Your task to perform on an android device: Open Maps and search for coffee Image 0: 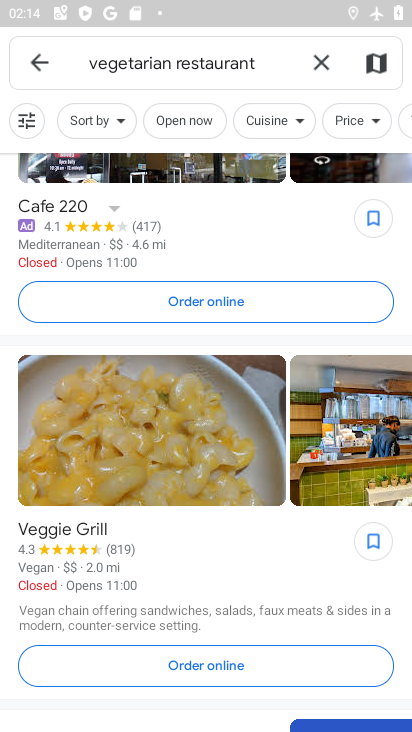
Step 0: drag from (248, 233) to (247, 599)
Your task to perform on an android device: Open Maps and search for coffee Image 1: 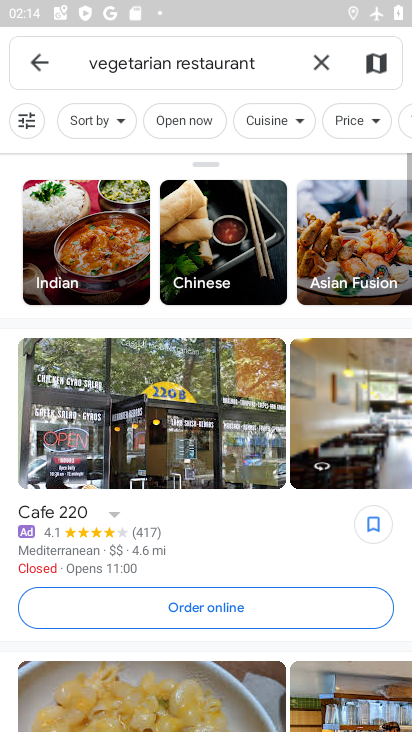
Step 1: click (328, 67)
Your task to perform on an android device: Open Maps and search for coffee Image 2: 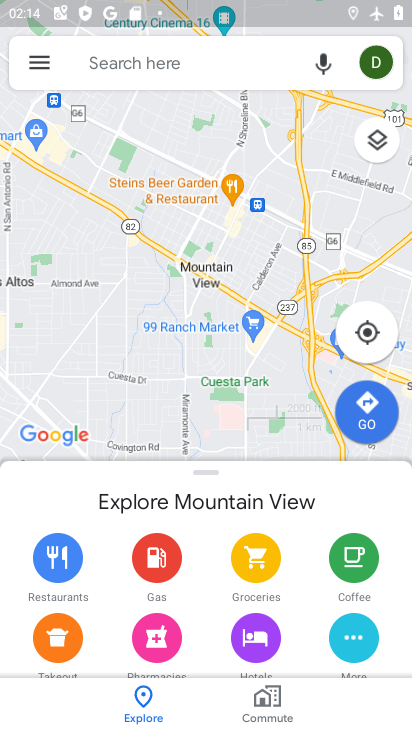
Step 2: click (206, 53)
Your task to perform on an android device: Open Maps and search for coffee Image 3: 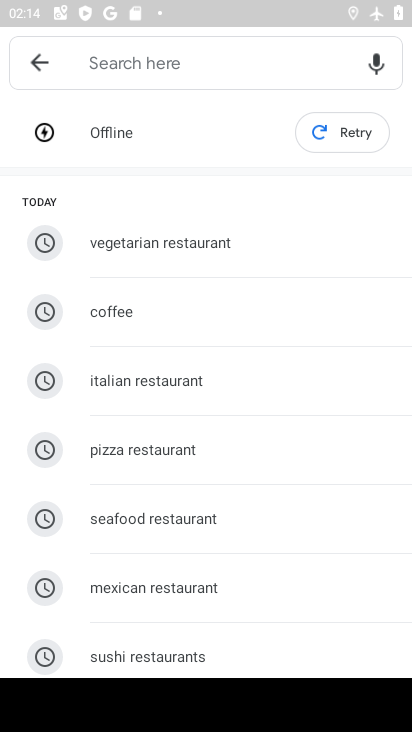
Step 3: click (147, 305)
Your task to perform on an android device: Open Maps and search for coffee Image 4: 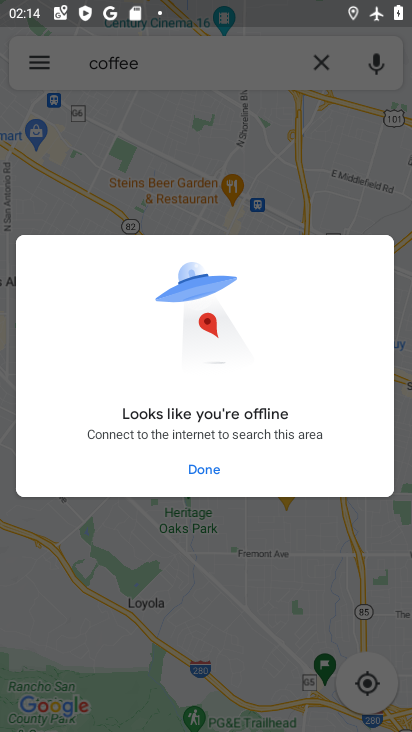
Step 4: click (215, 458)
Your task to perform on an android device: Open Maps and search for coffee Image 5: 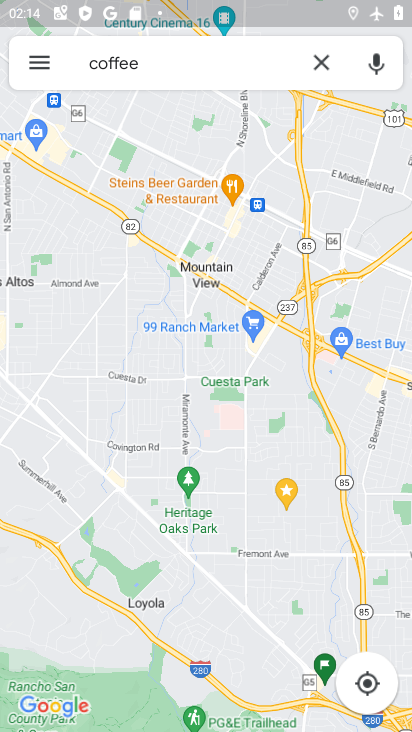
Step 5: task complete